Your task to perform on an android device: find which apps use the phone's location Image 0: 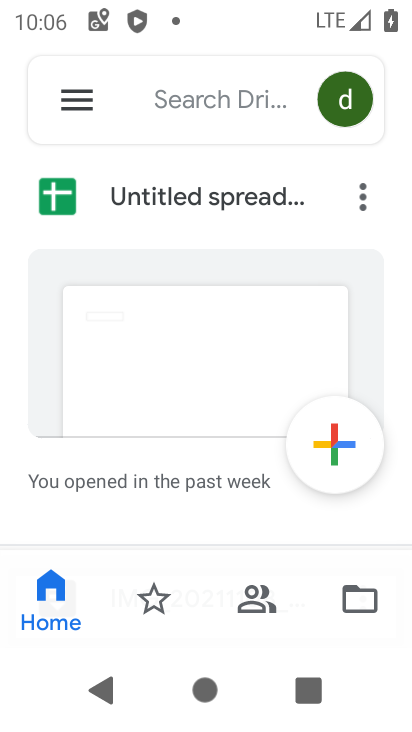
Step 0: press home button
Your task to perform on an android device: find which apps use the phone's location Image 1: 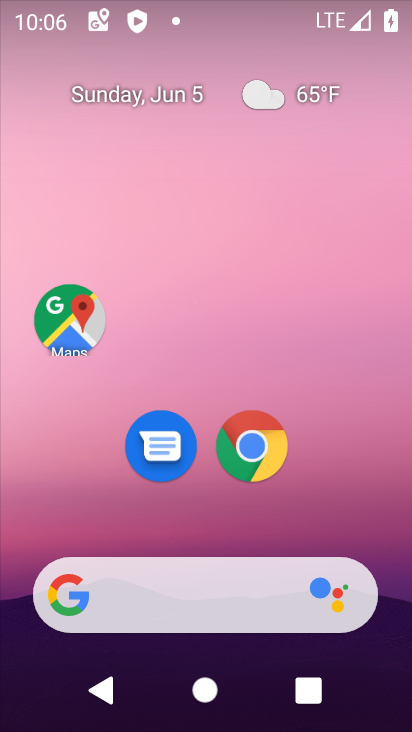
Step 1: drag from (200, 536) to (215, 117)
Your task to perform on an android device: find which apps use the phone's location Image 2: 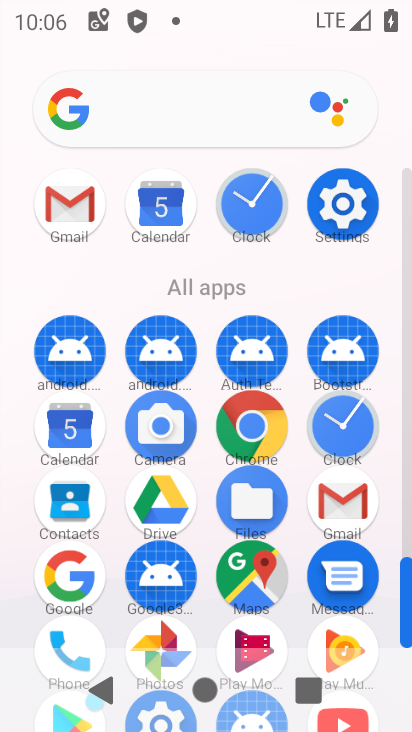
Step 2: click (339, 211)
Your task to perform on an android device: find which apps use the phone's location Image 3: 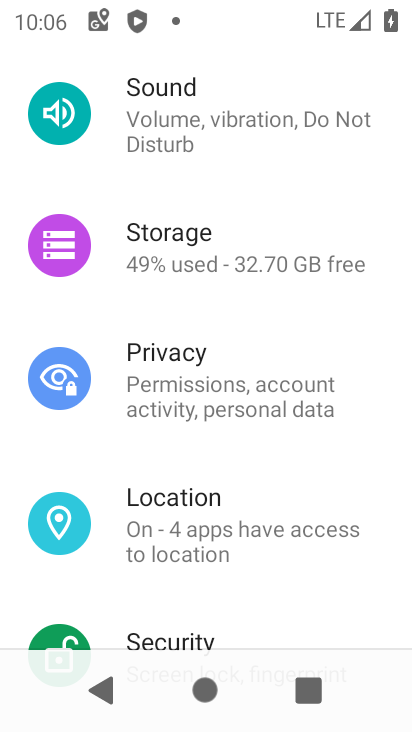
Step 3: drag from (205, 228) to (188, 555)
Your task to perform on an android device: find which apps use the phone's location Image 4: 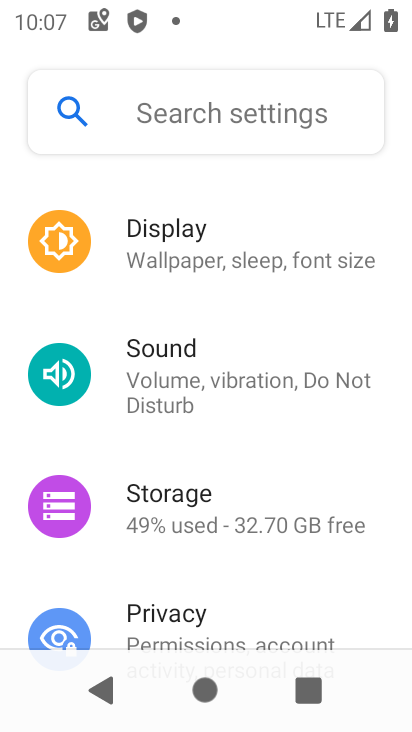
Step 4: drag from (218, 259) to (209, 480)
Your task to perform on an android device: find which apps use the phone's location Image 5: 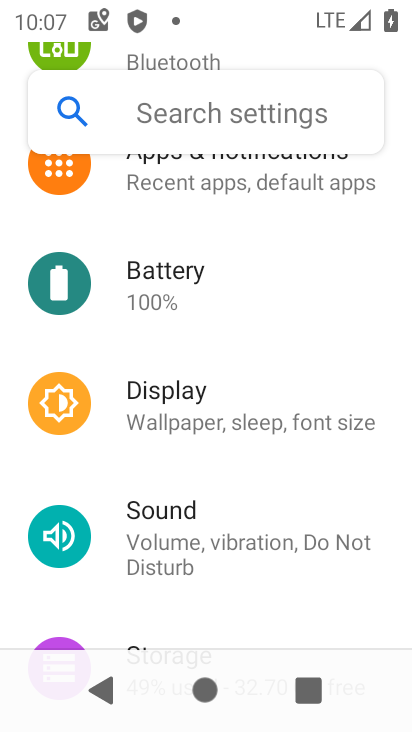
Step 5: drag from (221, 287) to (209, 577)
Your task to perform on an android device: find which apps use the phone's location Image 6: 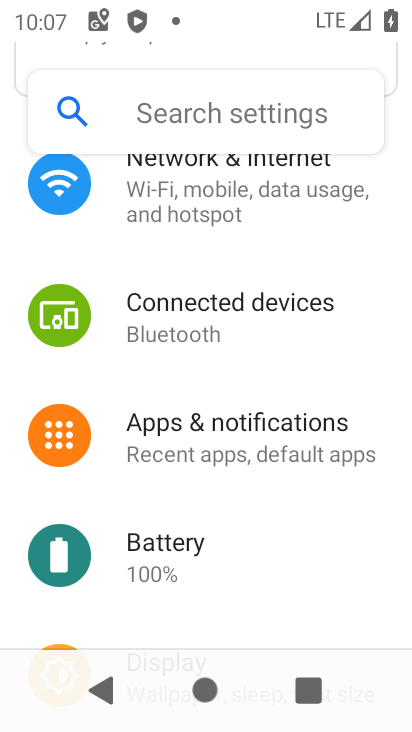
Step 6: click (186, 450)
Your task to perform on an android device: find which apps use the phone's location Image 7: 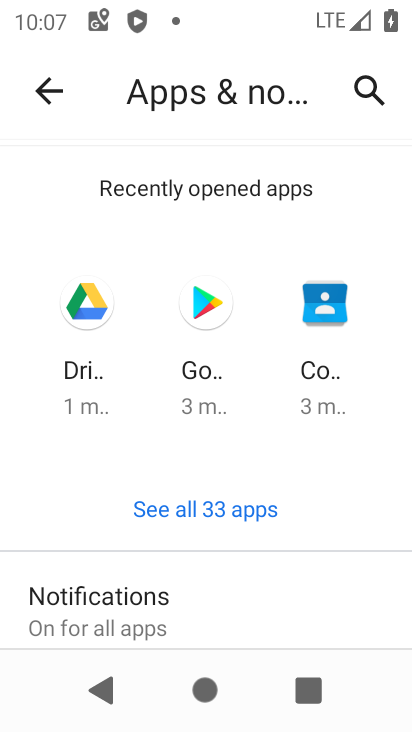
Step 7: drag from (208, 611) to (202, 409)
Your task to perform on an android device: find which apps use the phone's location Image 8: 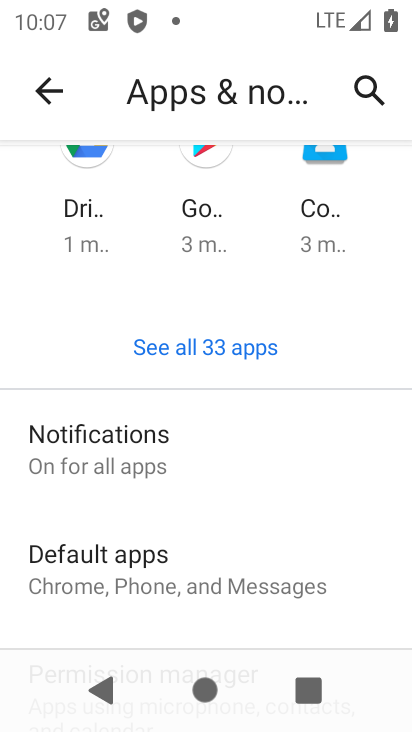
Step 8: click (98, 467)
Your task to perform on an android device: find which apps use the phone's location Image 9: 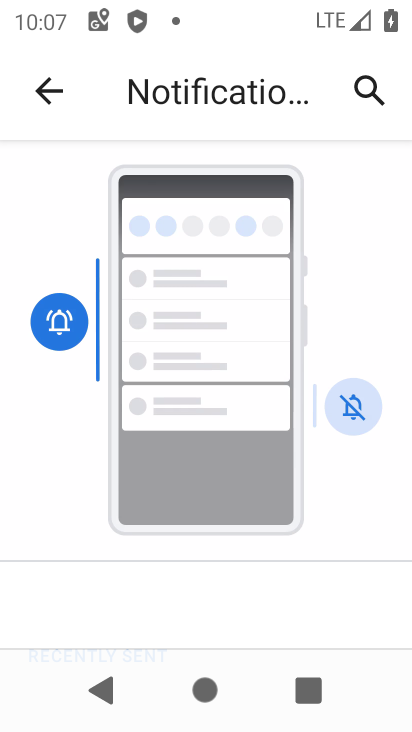
Step 9: drag from (217, 616) to (274, 328)
Your task to perform on an android device: find which apps use the phone's location Image 10: 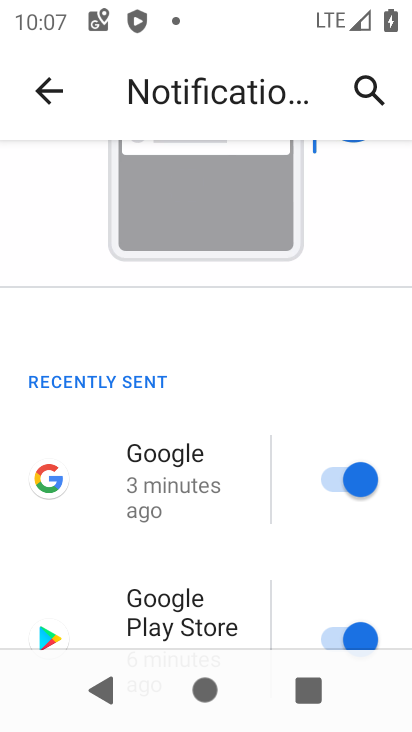
Step 10: drag from (223, 554) to (261, 278)
Your task to perform on an android device: find which apps use the phone's location Image 11: 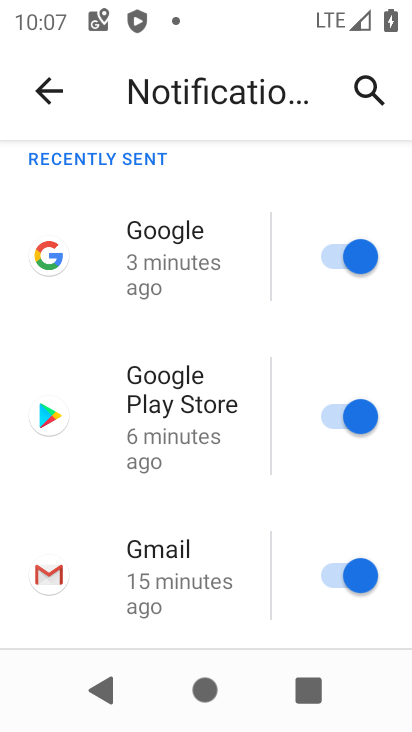
Step 11: drag from (211, 602) to (228, 243)
Your task to perform on an android device: find which apps use the phone's location Image 12: 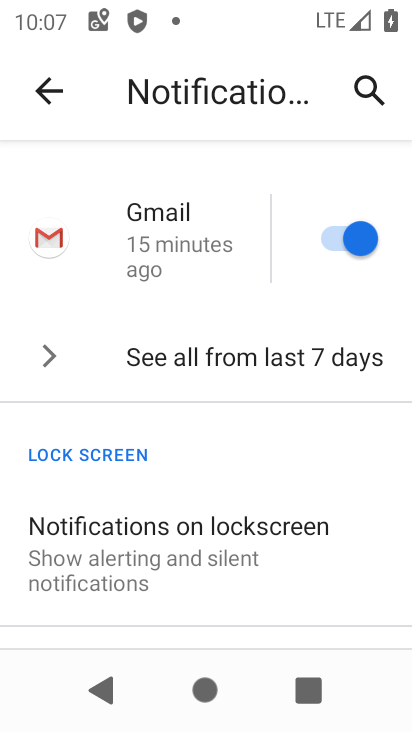
Step 12: drag from (242, 481) to (247, 229)
Your task to perform on an android device: find which apps use the phone's location Image 13: 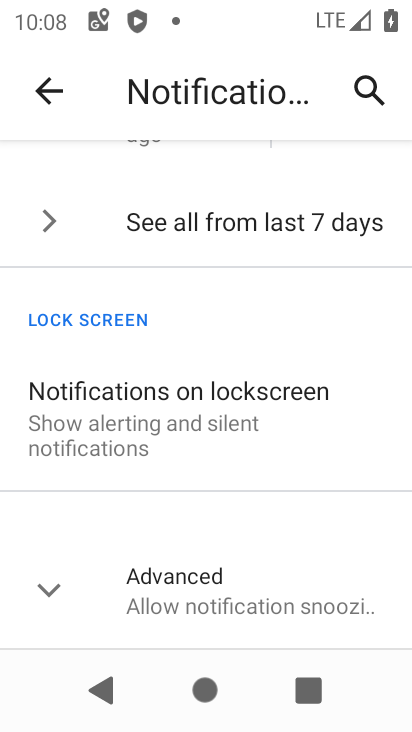
Step 13: press back button
Your task to perform on an android device: find which apps use the phone's location Image 14: 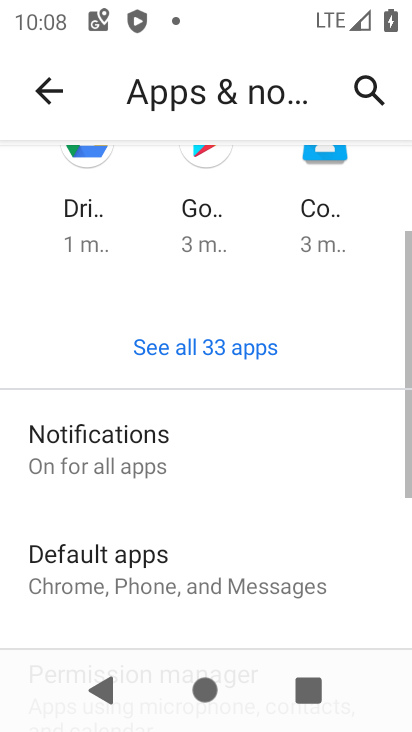
Step 14: press back button
Your task to perform on an android device: find which apps use the phone's location Image 15: 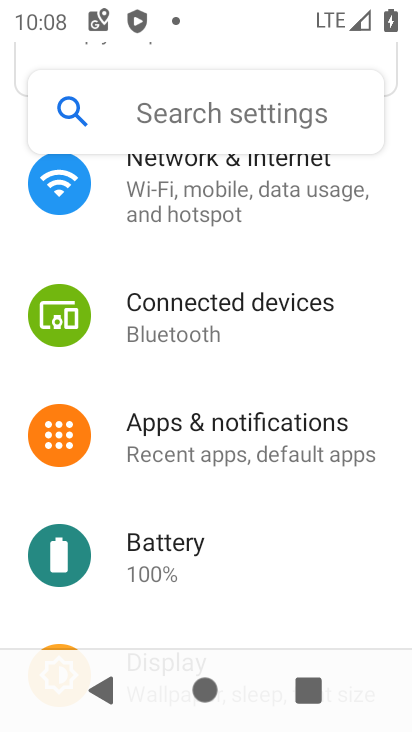
Step 15: drag from (226, 546) to (227, 305)
Your task to perform on an android device: find which apps use the phone's location Image 16: 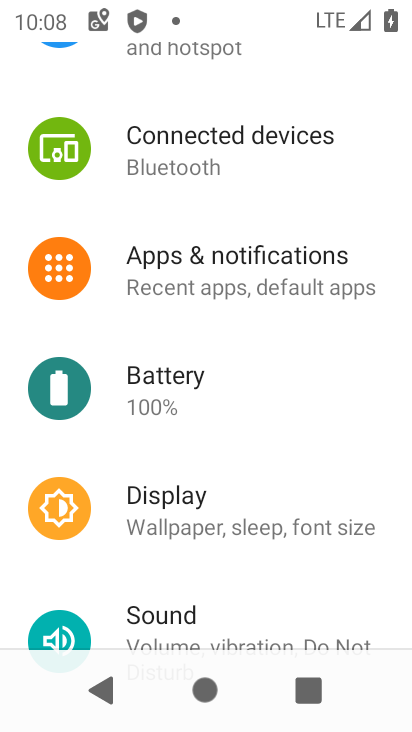
Step 16: drag from (200, 578) to (236, 300)
Your task to perform on an android device: find which apps use the phone's location Image 17: 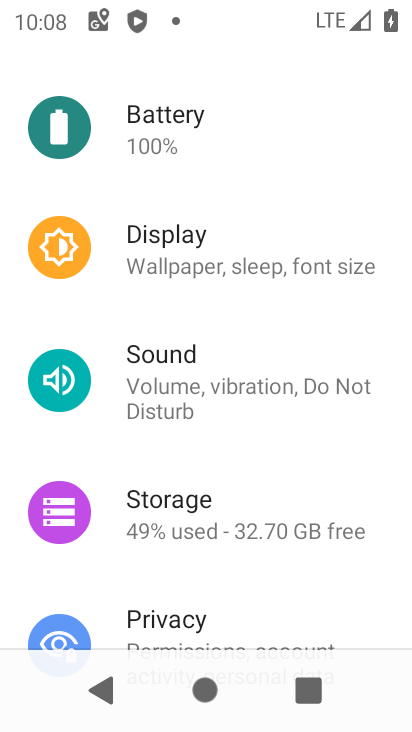
Step 17: drag from (206, 453) to (213, 298)
Your task to perform on an android device: find which apps use the phone's location Image 18: 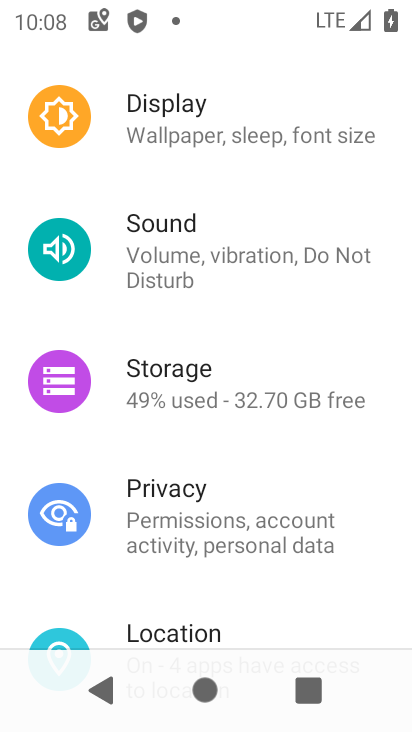
Step 18: click (180, 636)
Your task to perform on an android device: find which apps use the phone's location Image 19: 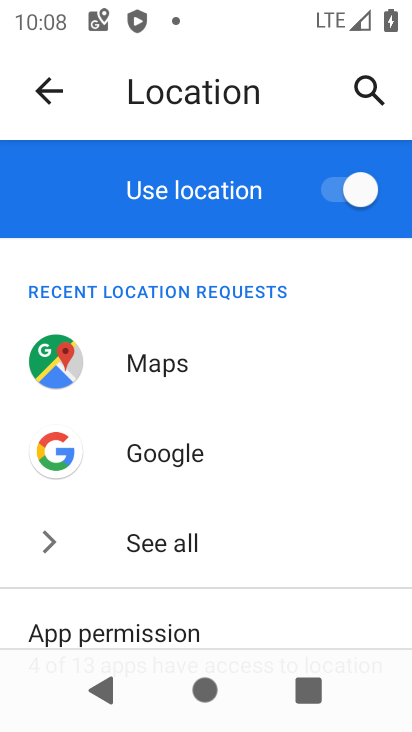
Step 19: drag from (213, 579) to (225, 290)
Your task to perform on an android device: find which apps use the phone's location Image 20: 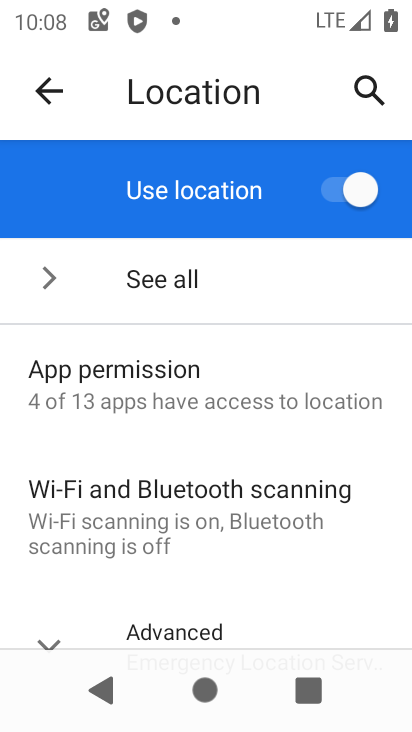
Step 20: click (148, 395)
Your task to perform on an android device: find which apps use the phone's location Image 21: 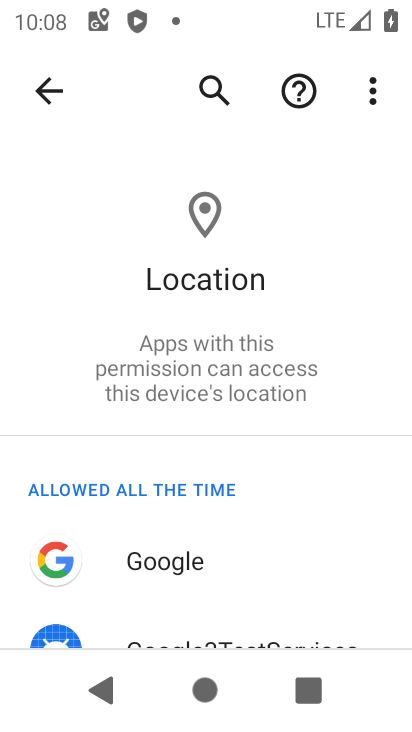
Step 21: drag from (257, 567) to (257, 247)
Your task to perform on an android device: find which apps use the phone's location Image 22: 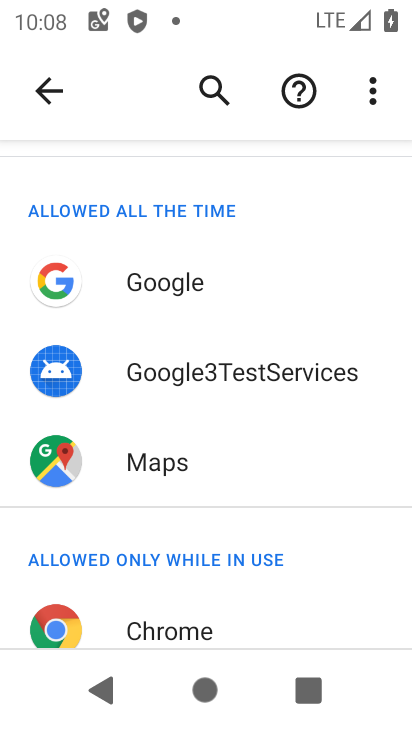
Step 22: drag from (270, 538) to (293, 166)
Your task to perform on an android device: find which apps use the phone's location Image 23: 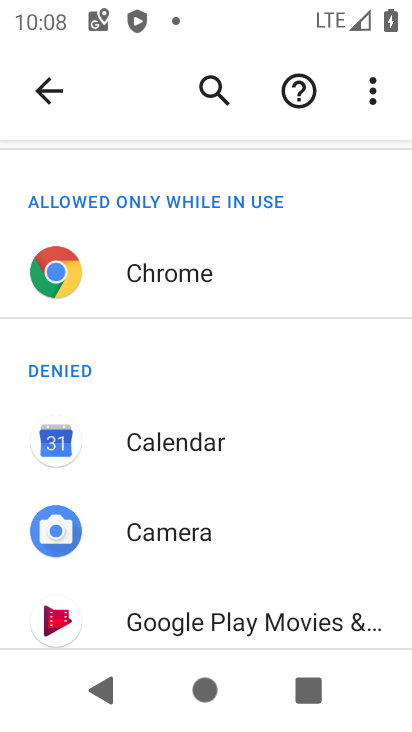
Step 23: drag from (262, 385) to (294, 561)
Your task to perform on an android device: find which apps use the phone's location Image 24: 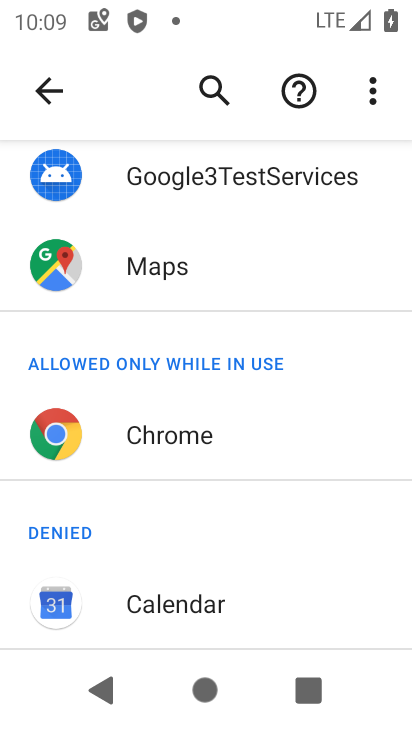
Step 24: press home button
Your task to perform on an android device: find which apps use the phone's location Image 25: 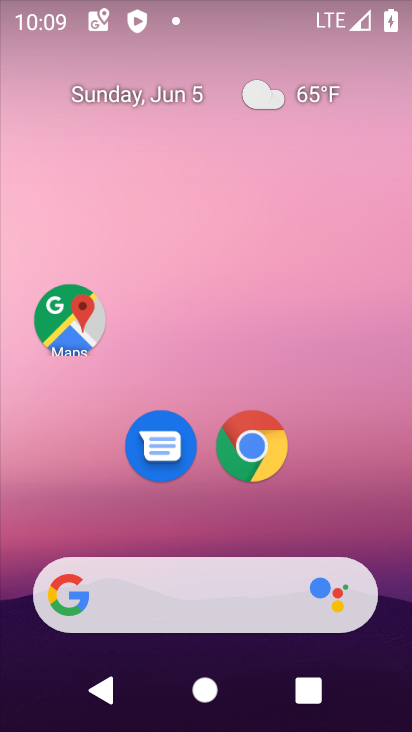
Step 25: drag from (198, 544) to (176, 136)
Your task to perform on an android device: find which apps use the phone's location Image 26: 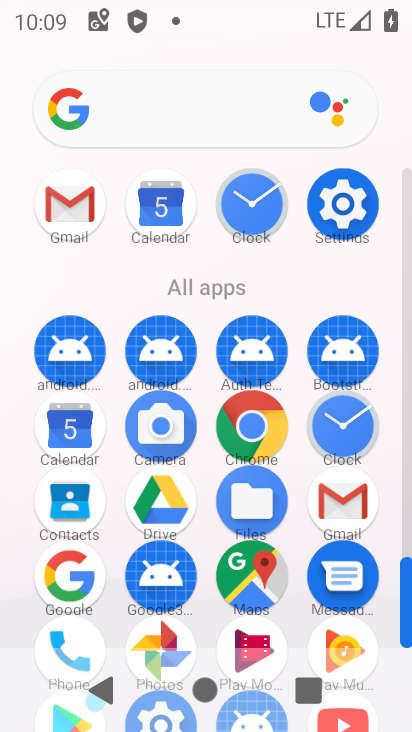
Step 26: click (347, 208)
Your task to perform on an android device: find which apps use the phone's location Image 27: 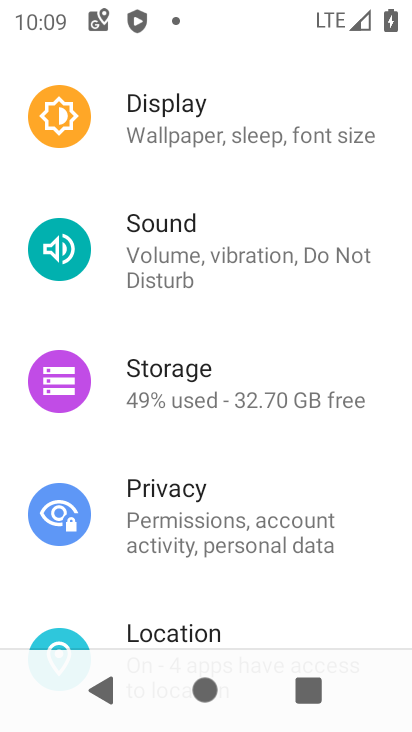
Step 27: drag from (157, 192) to (179, 329)
Your task to perform on an android device: find which apps use the phone's location Image 28: 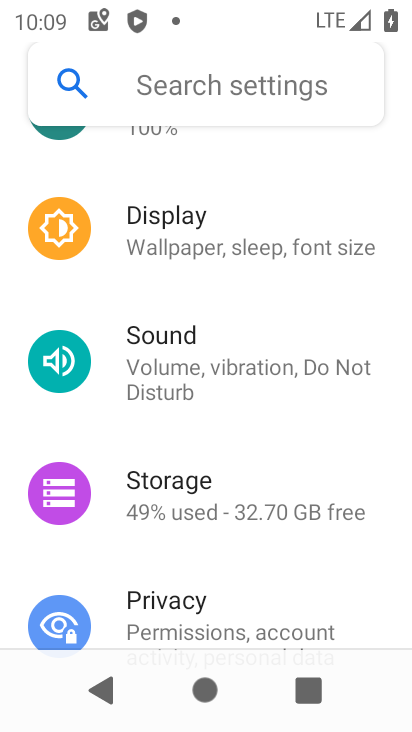
Step 28: drag from (211, 504) to (206, 190)
Your task to perform on an android device: find which apps use the phone's location Image 29: 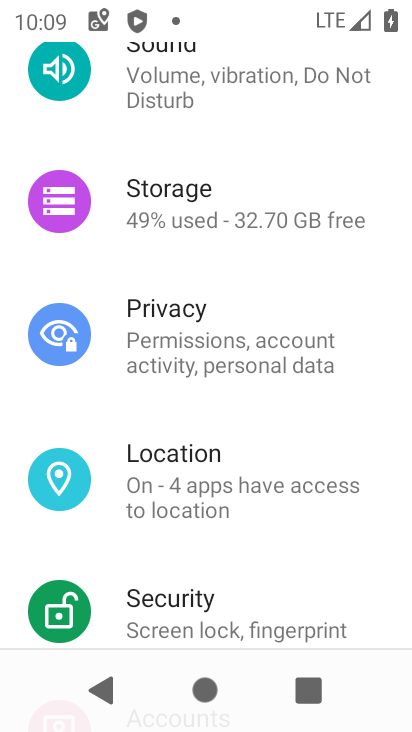
Step 29: click (215, 465)
Your task to perform on an android device: find which apps use the phone's location Image 30: 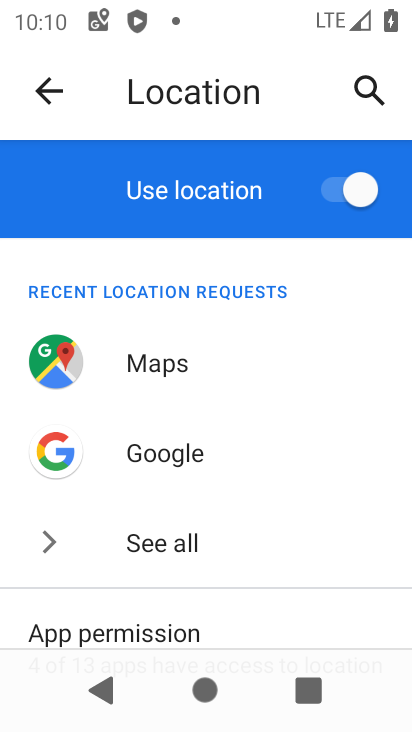
Step 30: press home button
Your task to perform on an android device: find which apps use the phone's location Image 31: 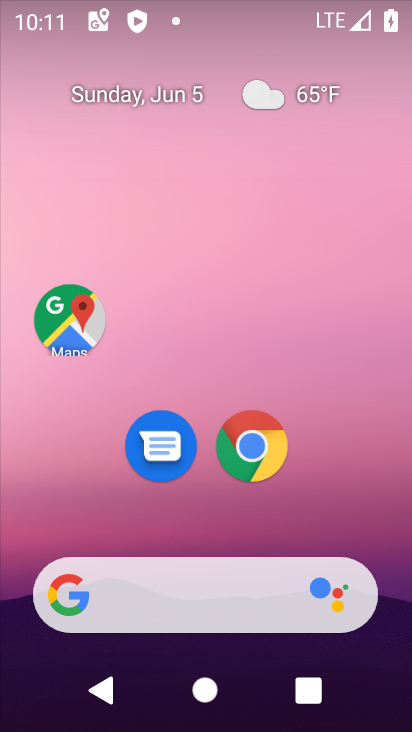
Step 31: drag from (185, 539) to (146, 176)
Your task to perform on an android device: find which apps use the phone's location Image 32: 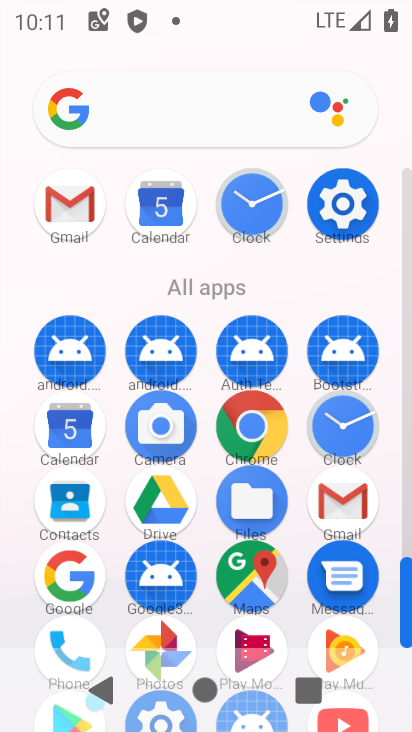
Step 32: click (340, 208)
Your task to perform on an android device: find which apps use the phone's location Image 33: 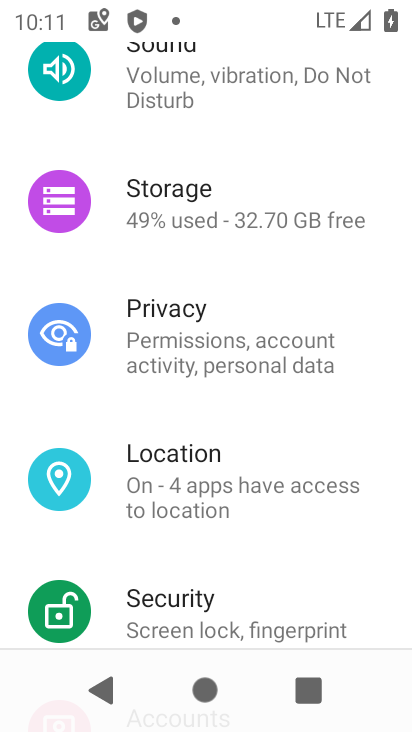
Step 33: drag from (249, 573) to (219, 466)
Your task to perform on an android device: find which apps use the phone's location Image 34: 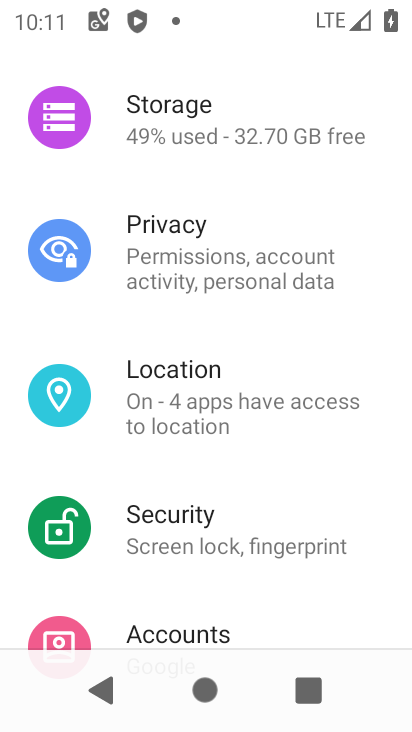
Step 34: drag from (219, 580) to (226, 290)
Your task to perform on an android device: find which apps use the phone's location Image 35: 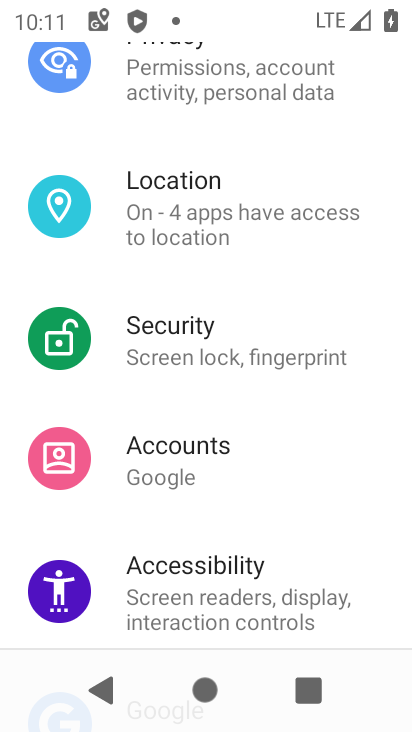
Step 35: click (194, 219)
Your task to perform on an android device: find which apps use the phone's location Image 36: 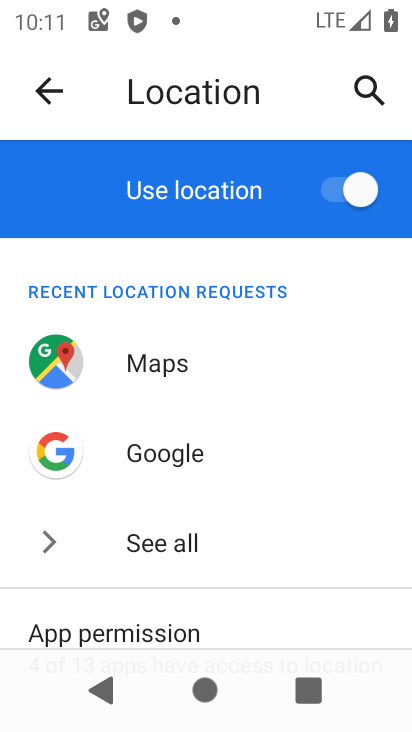
Step 36: drag from (216, 608) to (203, 314)
Your task to perform on an android device: find which apps use the phone's location Image 37: 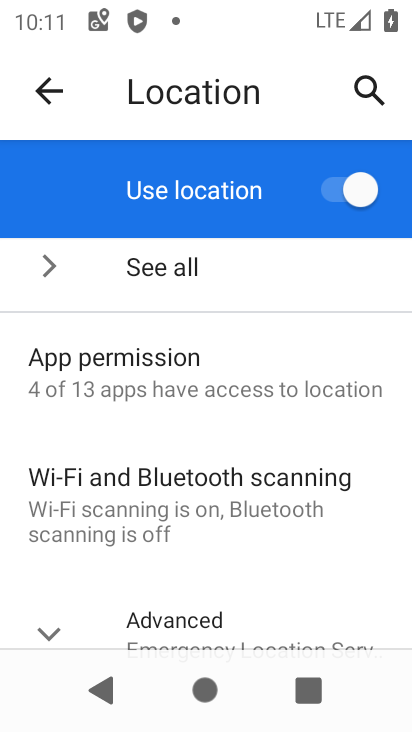
Step 37: click (198, 385)
Your task to perform on an android device: find which apps use the phone's location Image 38: 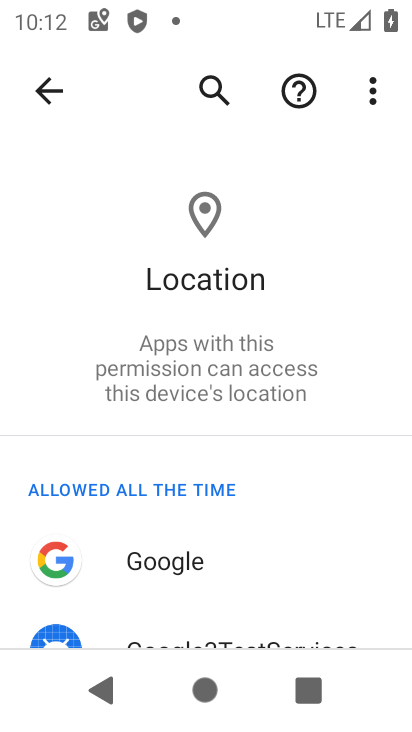
Step 38: task complete